Your task to perform on an android device: Do I have any events this weekend? Image 0: 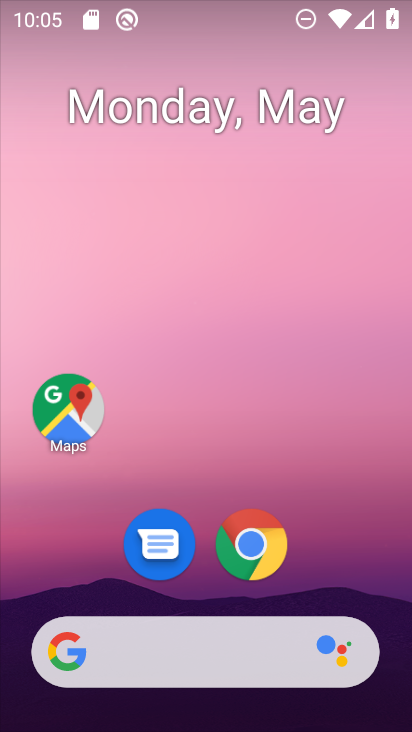
Step 0: drag from (353, 534) to (239, 166)
Your task to perform on an android device: Do I have any events this weekend? Image 1: 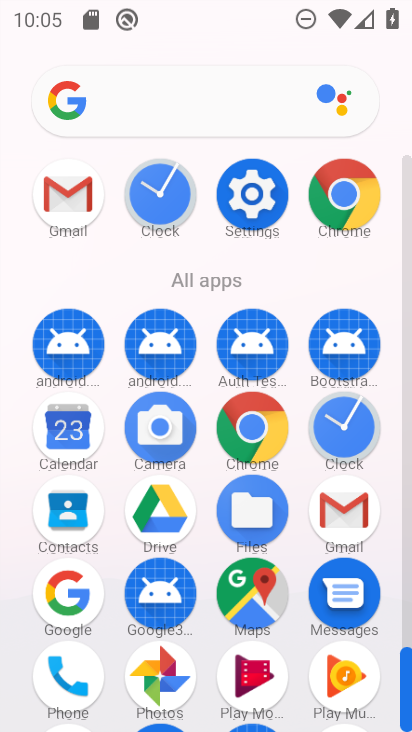
Step 1: click (67, 444)
Your task to perform on an android device: Do I have any events this weekend? Image 2: 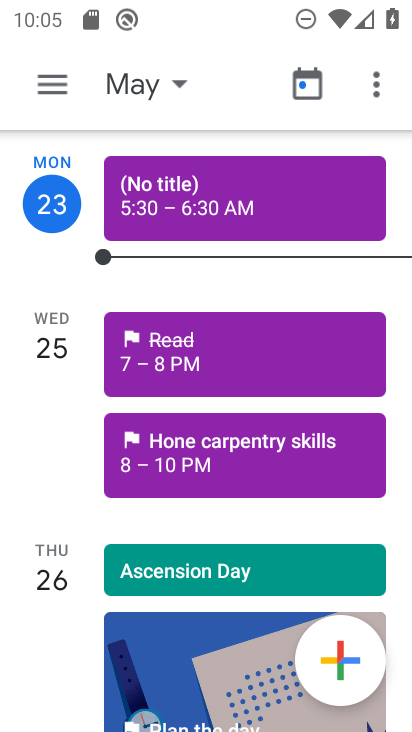
Step 2: task complete